Your task to perform on an android device: Open the phone app and click the voicemail tab. Image 0: 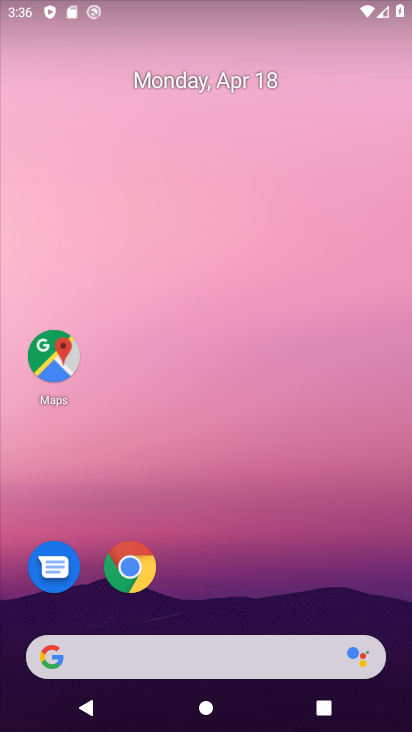
Step 0: drag from (339, 413) to (326, 81)
Your task to perform on an android device: Open the phone app and click the voicemail tab. Image 1: 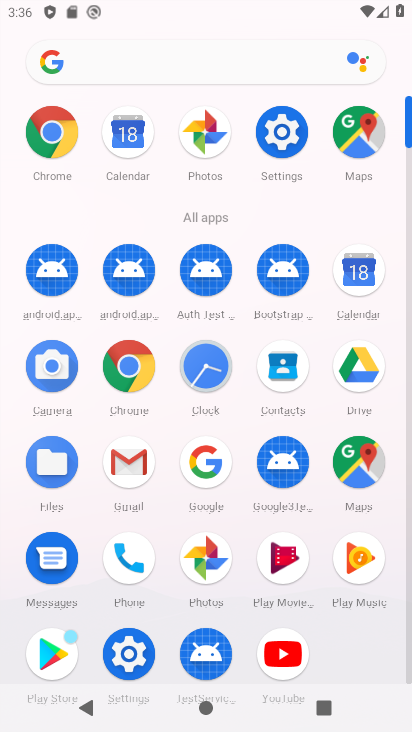
Step 1: click (143, 556)
Your task to perform on an android device: Open the phone app and click the voicemail tab. Image 2: 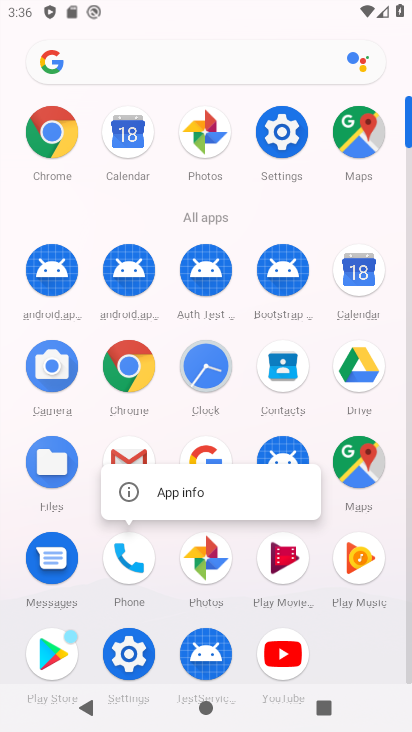
Step 2: click (140, 558)
Your task to perform on an android device: Open the phone app and click the voicemail tab. Image 3: 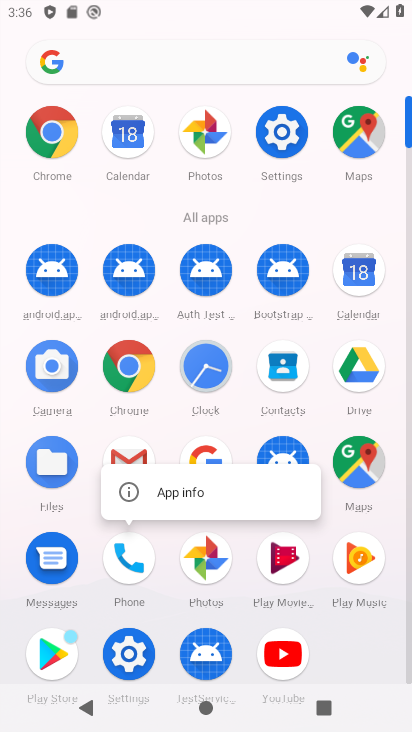
Step 3: click (133, 565)
Your task to perform on an android device: Open the phone app and click the voicemail tab. Image 4: 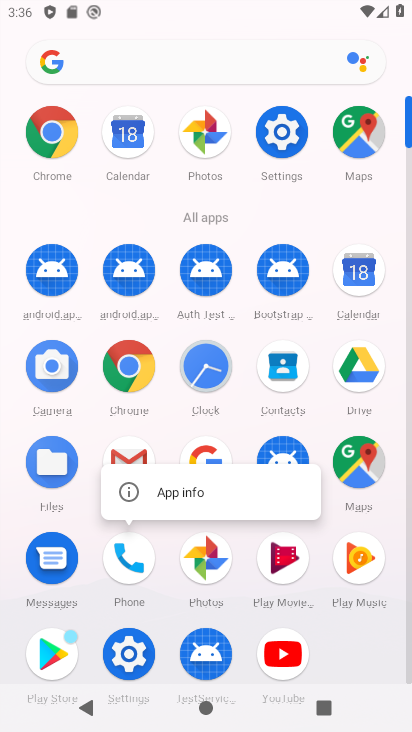
Step 4: click (138, 576)
Your task to perform on an android device: Open the phone app and click the voicemail tab. Image 5: 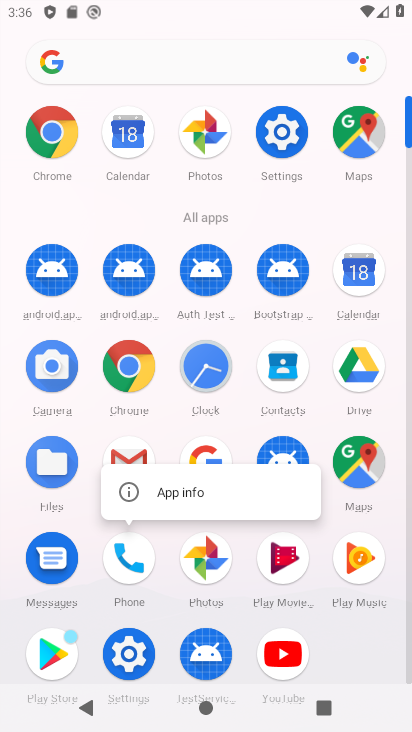
Step 5: click (125, 572)
Your task to perform on an android device: Open the phone app and click the voicemail tab. Image 6: 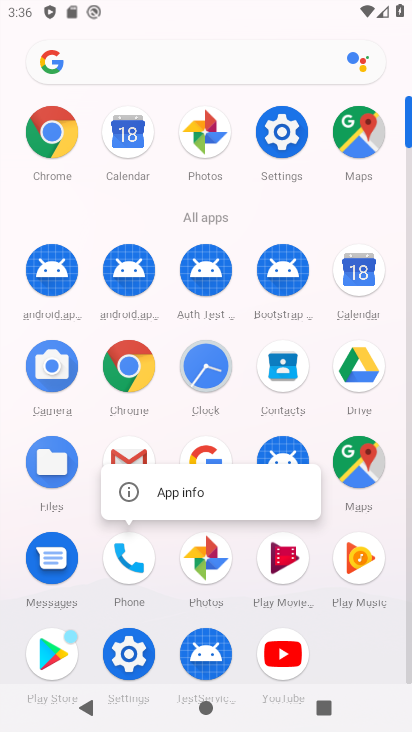
Step 6: click (122, 582)
Your task to perform on an android device: Open the phone app and click the voicemail tab. Image 7: 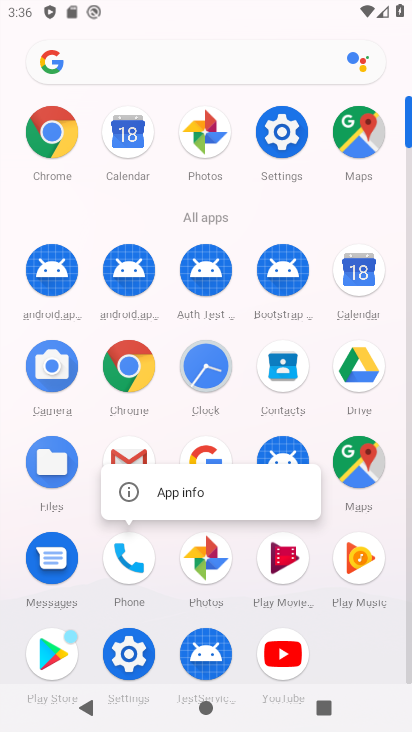
Step 7: click (121, 569)
Your task to perform on an android device: Open the phone app and click the voicemail tab. Image 8: 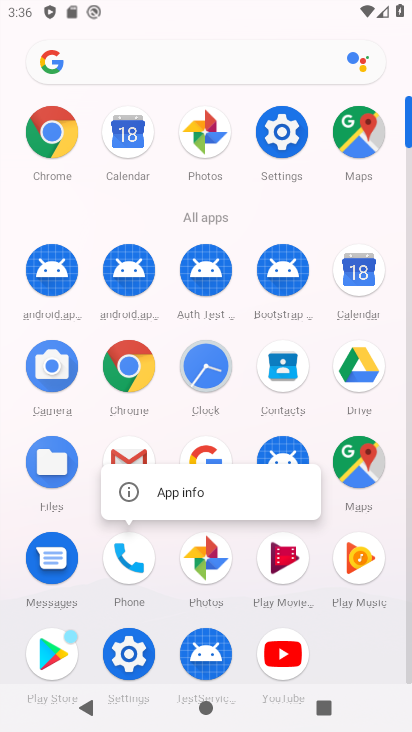
Step 8: click (137, 572)
Your task to perform on an android device: Open the phone app and click the voicemail tab. Image 9: 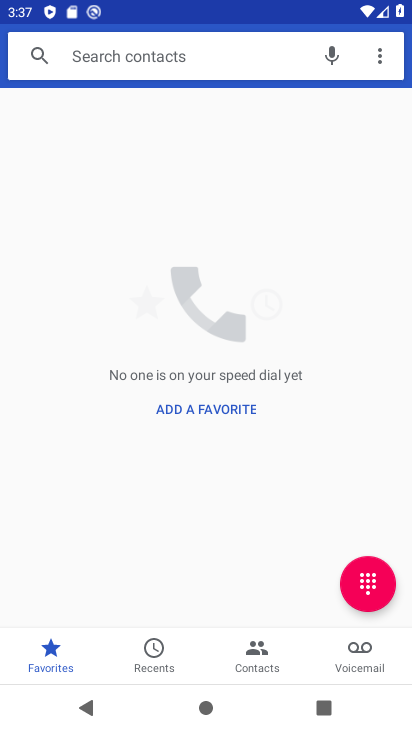
Step 9: click (353, 659)
Your task to perform on an android device: Open the phone app and click the voicemail tab. Image 10: 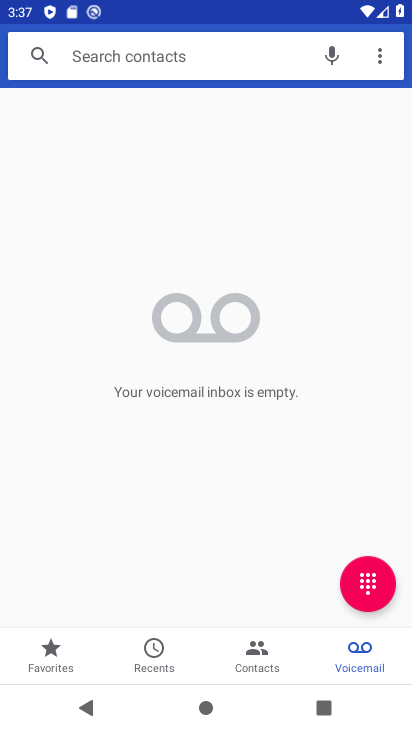
Step 10: task complete